Your task to perform on an android device: delete location history Image 0: 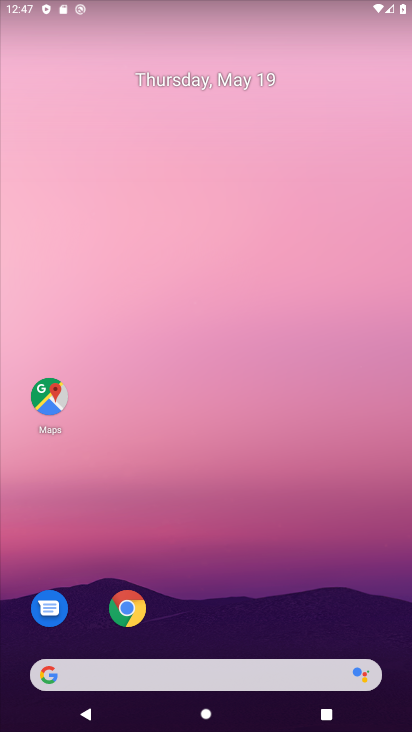
Step 0: drag from (209, 635) to (270, 107)
Your task to perform on an android device: delete location history Image 1: 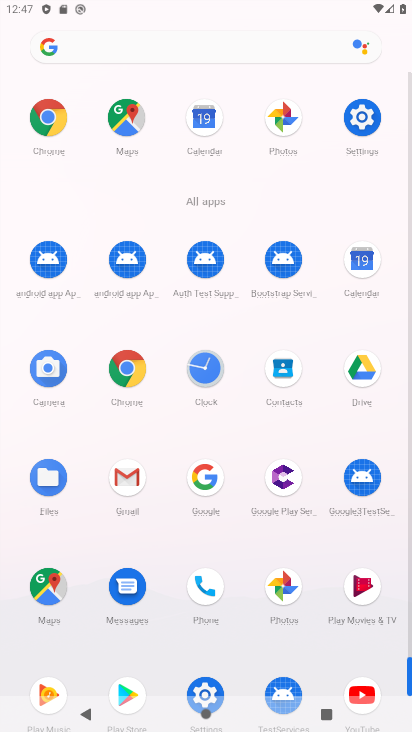
Step 1: click (48, 594)
Your task to perform on an android device: delete location history Image 2: 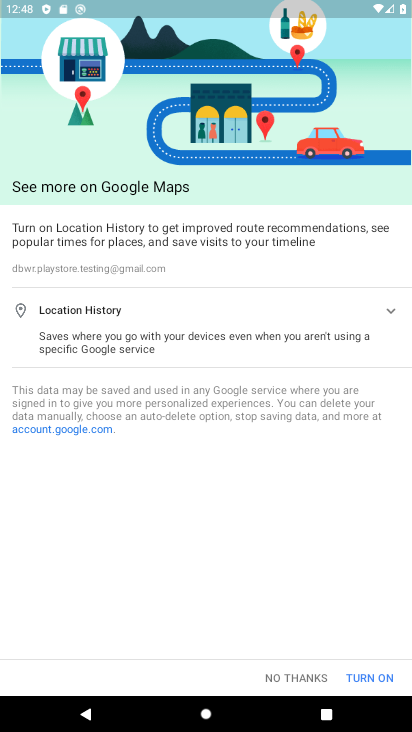
Step 2: click (307, 680)
Your task to perform on an android device: delete location history Image 3: 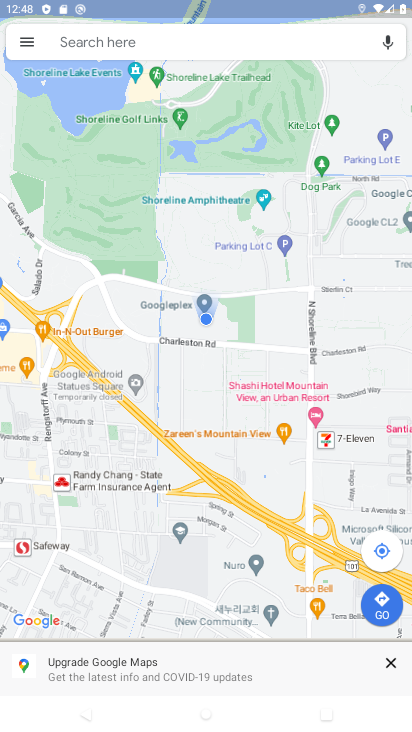
Step 3: click (393, 655)
Your task to perform on an android device: delete location history Image 4: 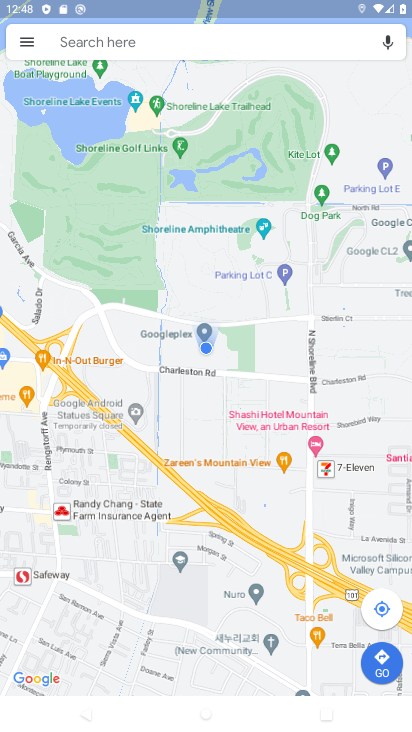
Step 4: click (20, 34)
Your task to perform on an android device: delete location history Image 5: 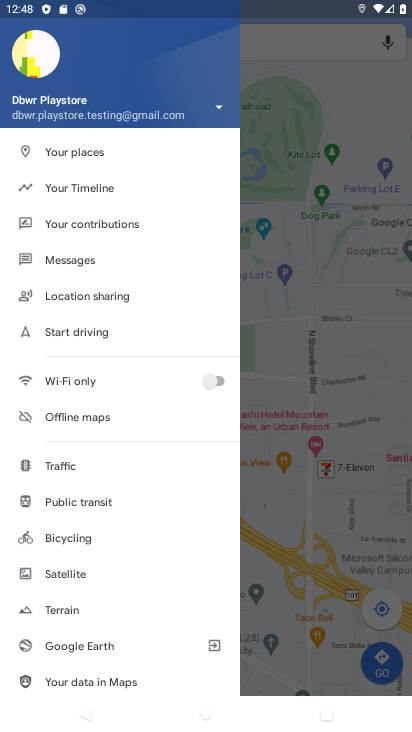
Step 5: click (103, 186)
Your task to perform on an android device: delete location history Image 6: 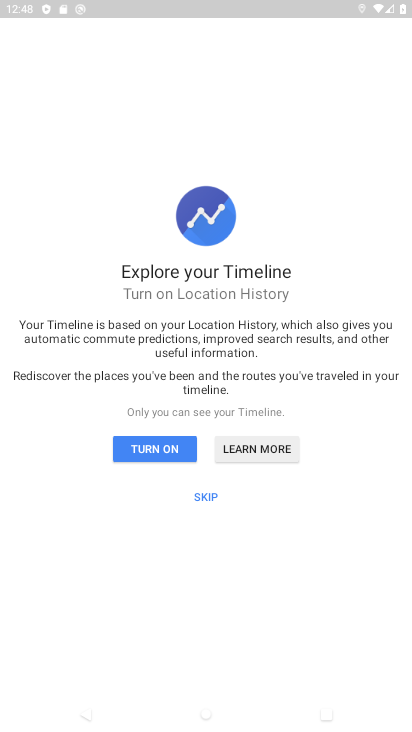
Step 6: click (202, 501)
Your task to perform on an android device: delete location history Image 7: 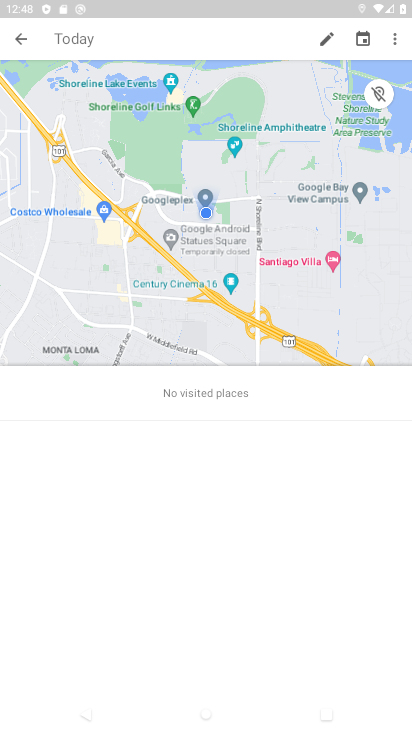
Step 7: click (393, 46)
Your task to perform on an android device: delete location history Image 8: 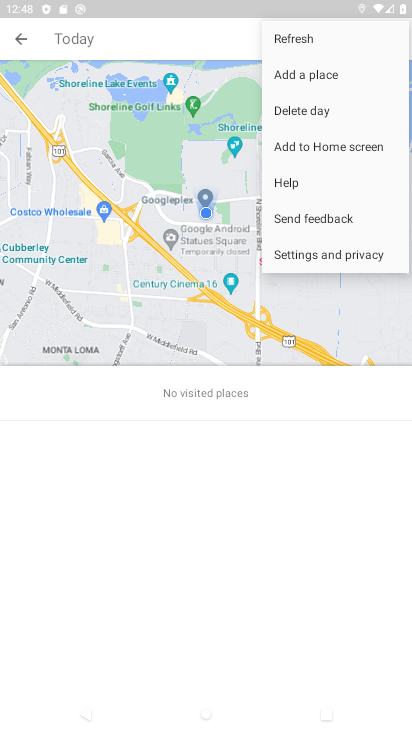
Step 8: click (303, 252)
Your task to perform on an android device: delete location history Image 9: 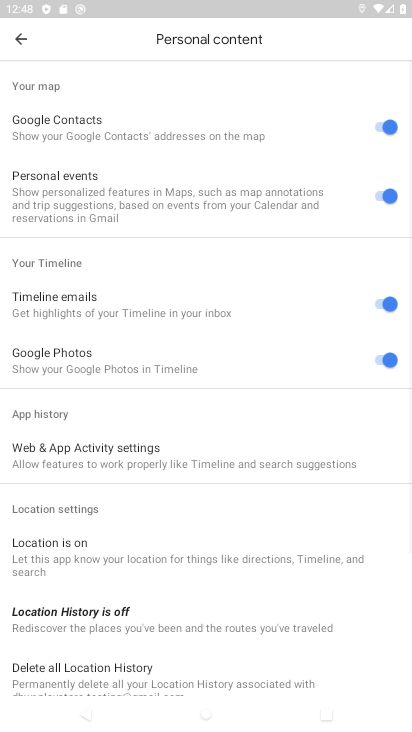
Step 9: drag from (164, 568) to (189, 255)
Your task to perform on an android device: delete location history Image 10: 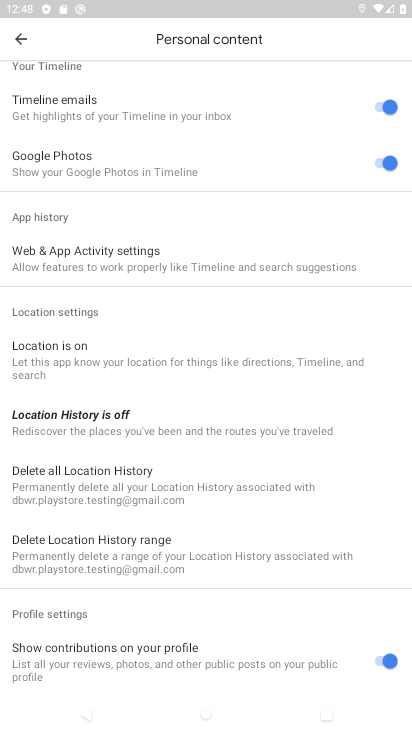
Step 10: click (124, 493)
Your task to perform on an android device: delete location history Image 11: 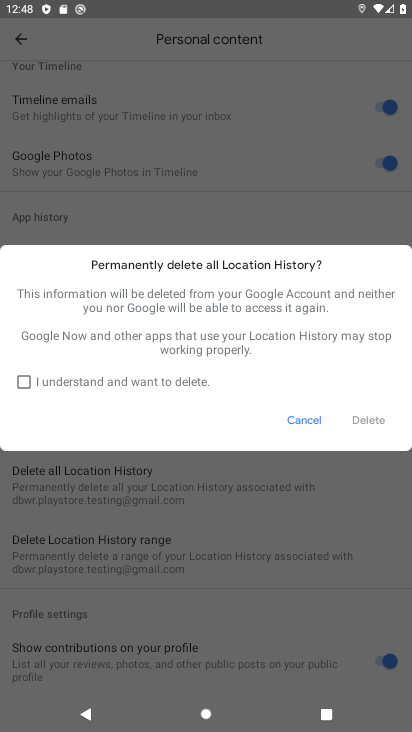
Step 11: click (159, 377)
Your task to perform on an android device: delete location history Image 12: 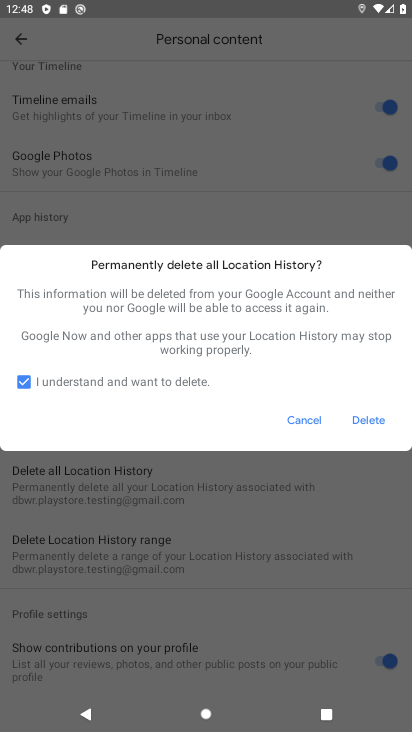
Step 12: click (368, 421)
Your task to perform on an android device: delete location history Image 13: 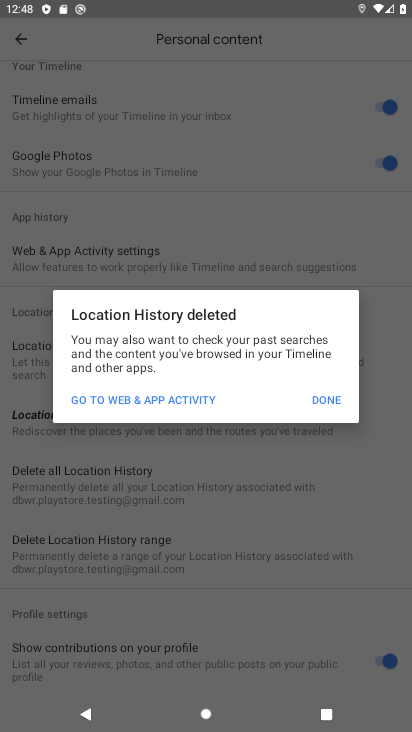
Step 13: click (325, 394)
Your task to perform on an android device: delete location history Image 14: 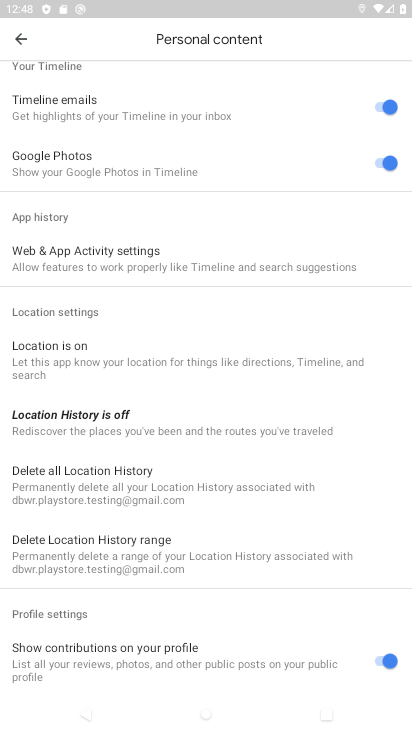
Step 14: task complete